Your task to perform on an android device: Open Amazon Image 0: 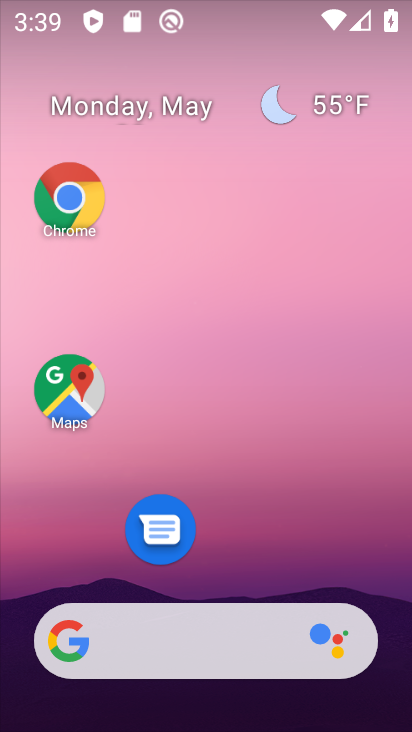
Step 0: drag from (253, 600) to (254, 14)
Your task to perform on an android device: Open Amazon Image 1: 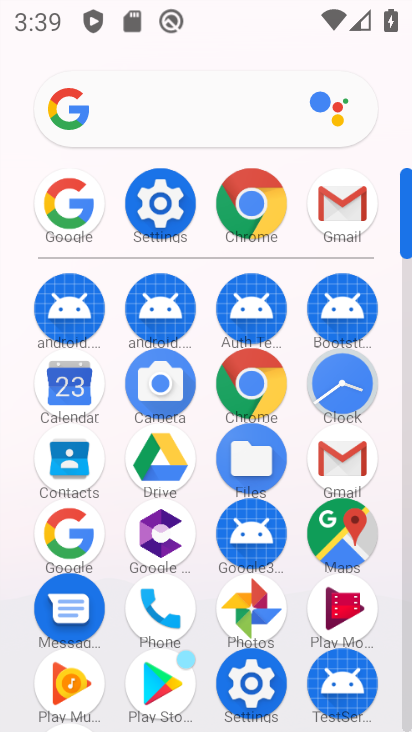
Step 1: click (247, 238)
Your task to perform on an android device: Open Amazon Image 2: 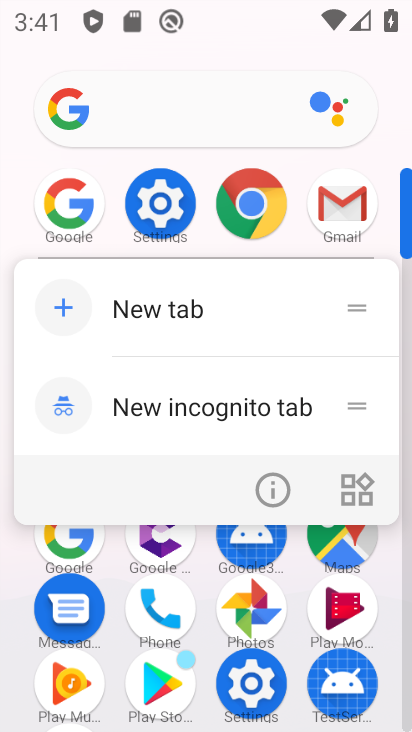
Step 2: click (249, 195)
Your task to perform on an android device: Open Amazon Image 3: 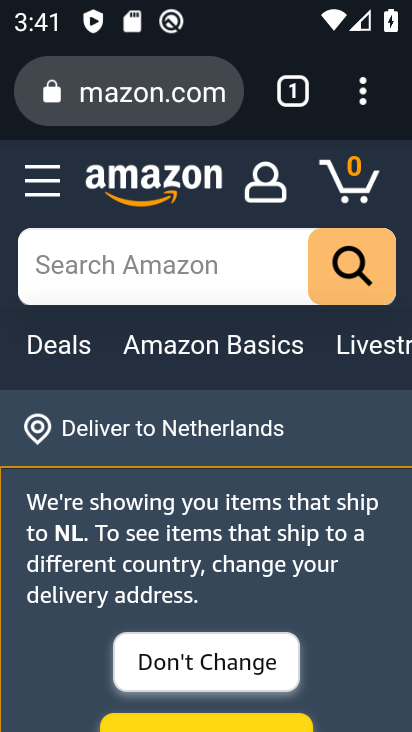
Step 3: task complete